Your task to perform on an android device: turn off notifications settings in the gmail app Image 0: 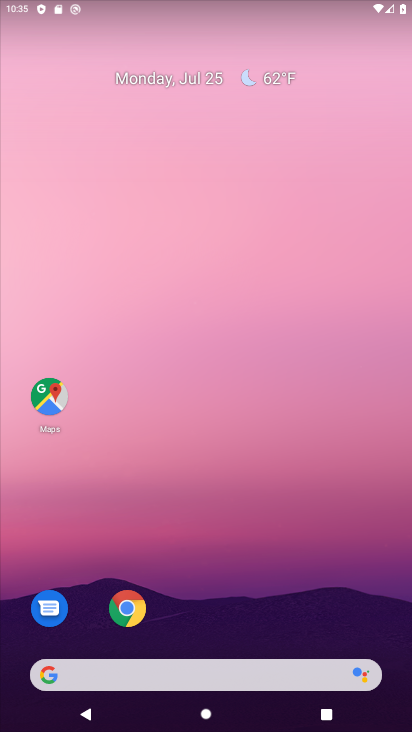
Step 0: drag from (165, 649) to (165, 291)
Your task to perform on an android device: turn off notifications settings in the gmail app Image 1: 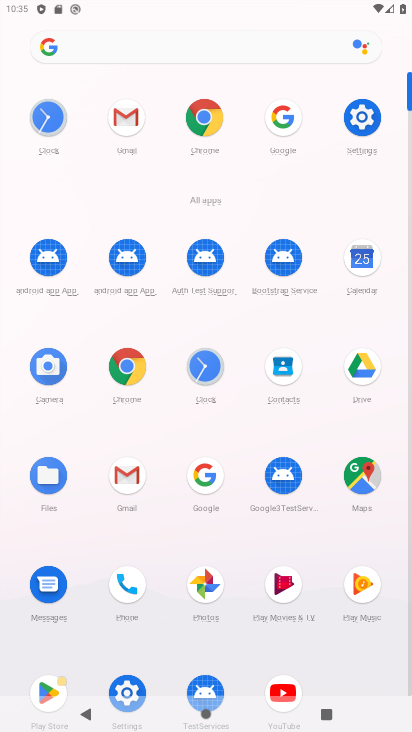
Step 1: click (120, 479)
Your task to perform on an android device: turn off notifications settings in the gmail app Image 2: 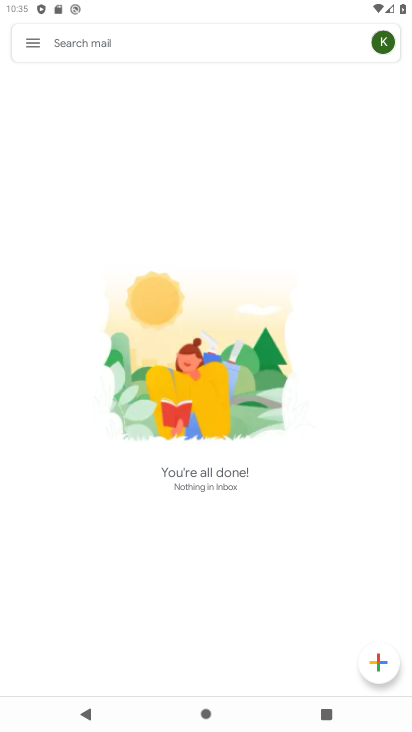
Step 2: click (34, 44)
Your task to perform on an android device: turn off notifications settings in the gmail app Image 3: 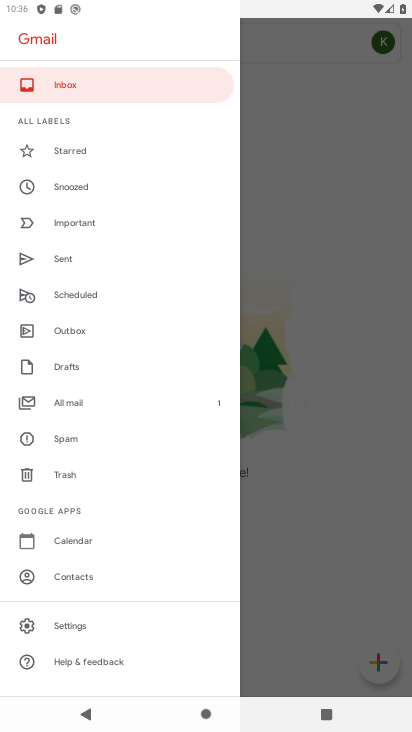
Step 3: click (78, 622)
Your task to perform on an android device: turn off notifications settings in the gmail app Image 4: 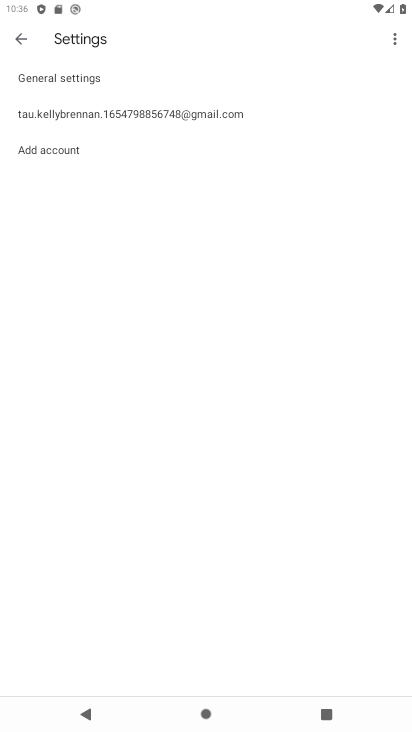
Step 4: click (79, 107)
Your task to perform on an android device: turn off notifications settings in the gmail app Image 5: 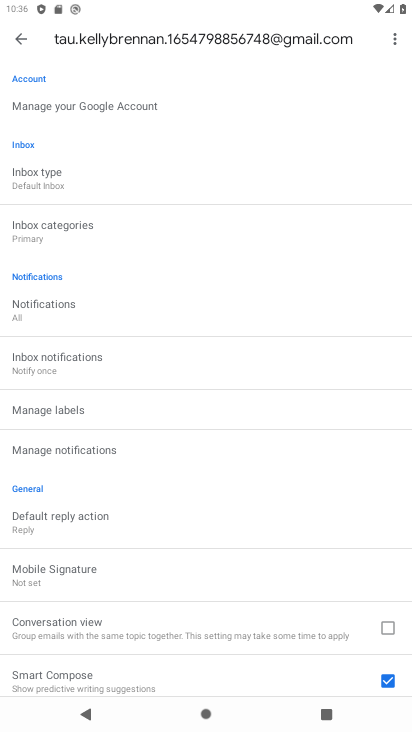
Step 5: click (52, 454)
Your task to perform on an android device: turn off notifications settings in the gmail app Image 6: 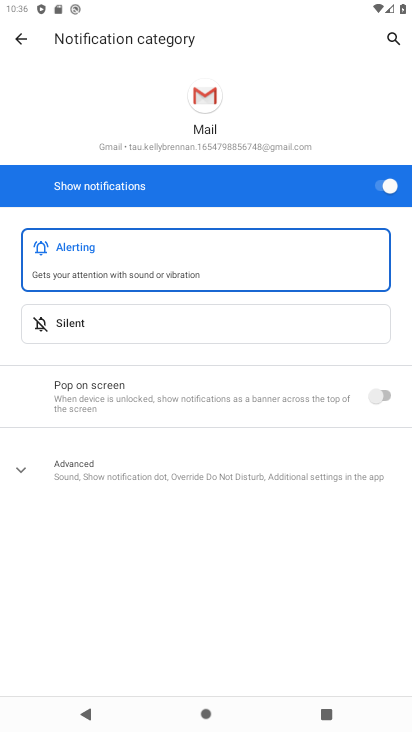
Step 6: click (382, 188)
Your task to perform on an android device: turn off notifications settings in the gmail app Image 7: 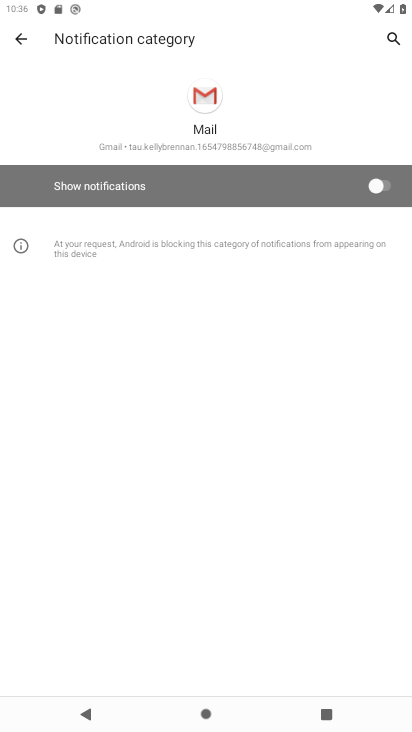
Step 7: task complete